Your task to perform on an android device: open chrome privacy settings Image 0: 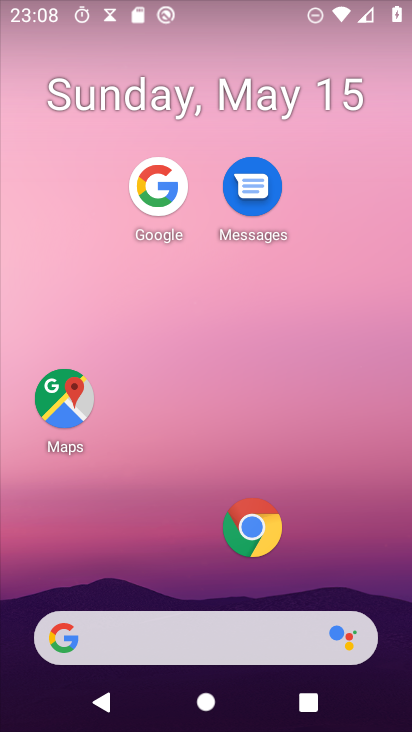
Step 0: press home button
Your task to perform on an android device: open chrome privacy settings Image 1: 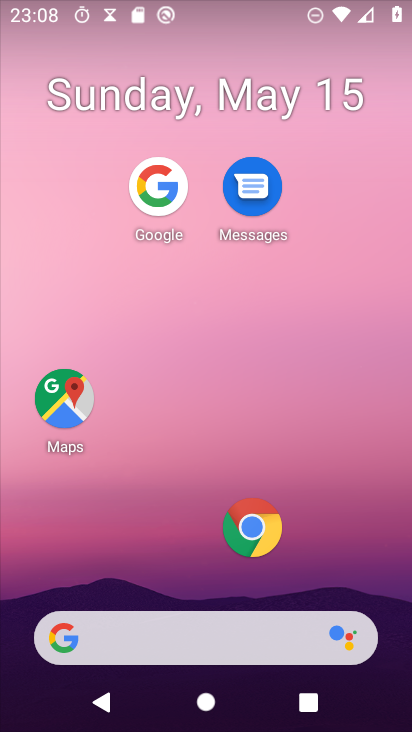
Step 1: click (246, 527)
Your task to perform on an android device: open chrome privacy settings Image 2: 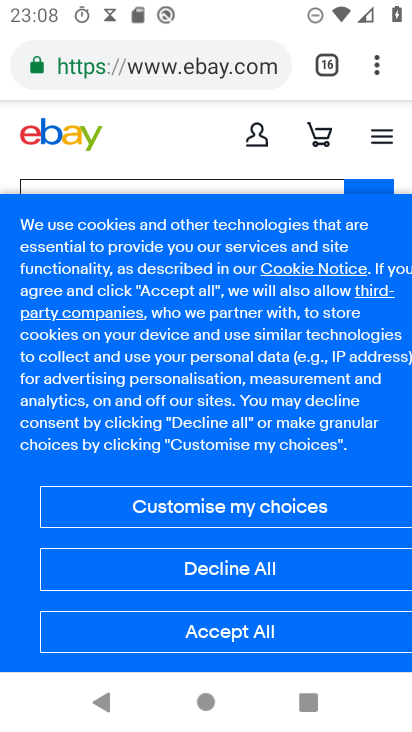
Step 2: drag from (379, 70) to (235, 586)
Your task to perform on an android device: open chrome privacy settings Image 3: 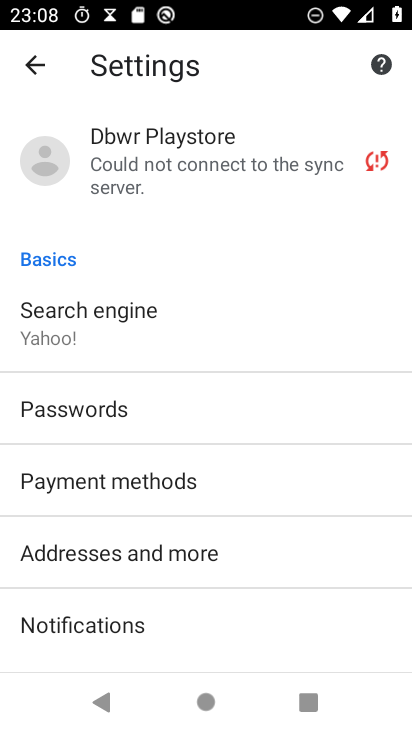
Step 3: drag from (186, 603) to (300, 290)
Your task to perform on an android device: open chrome privacy settings Image 4: 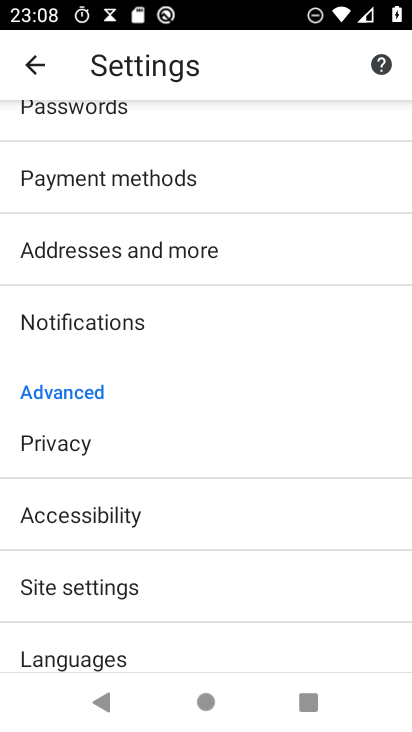
Step 4: click (88, 448)
Your task to perform on an android device: open chrome privacy settings Image 5: 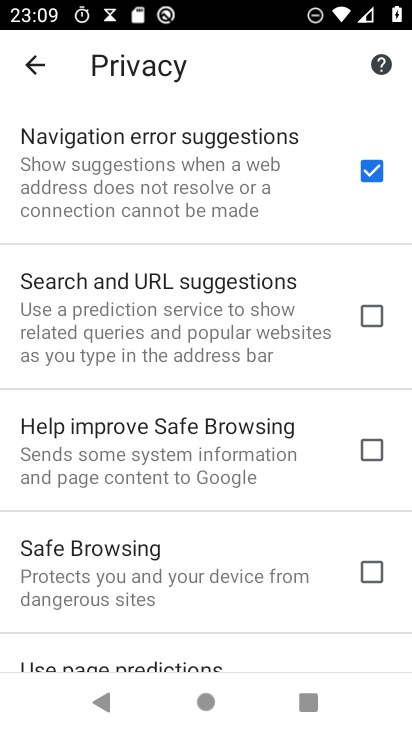
Step 5: task complete